Your task to perform on an android device: turn on sleep mode Image 0: 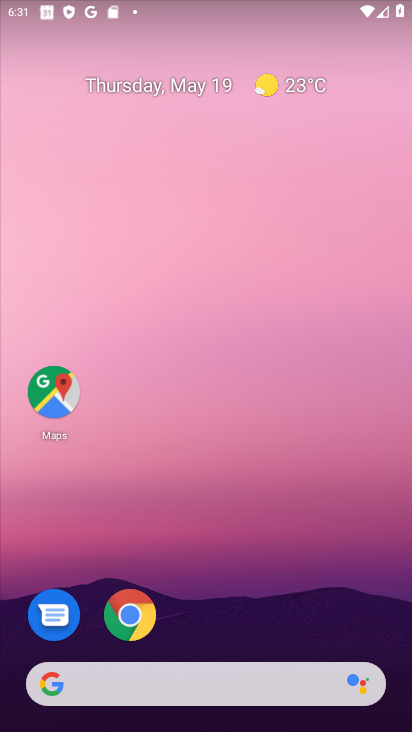
Step 0: drag from (372, 620) to (280, 33)
Your task to perform on an android device: turn on sleep mode Image 1: 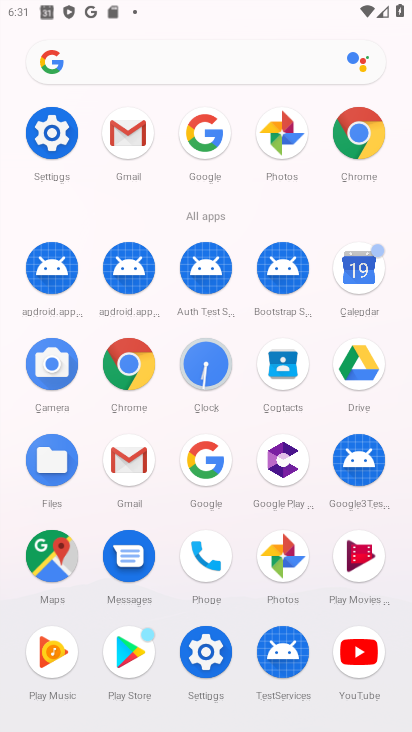
Step 1: click (45, 130)
Your task to perform on an android device: turn on sleep mode Image 2: 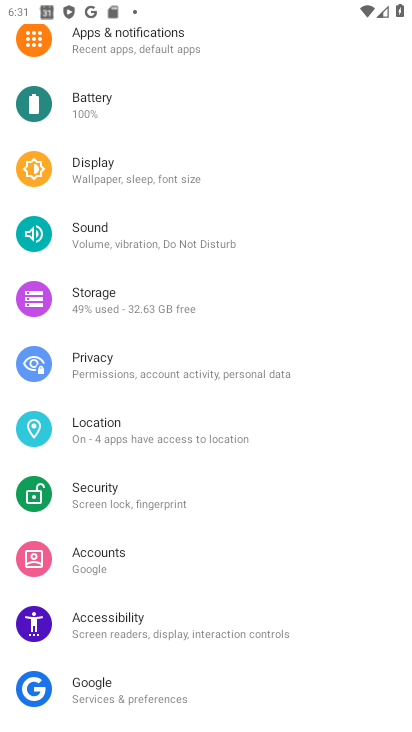
Step 2: task complete